Your task to perform on an android device: move a message to another label in the gmail app Image 0: 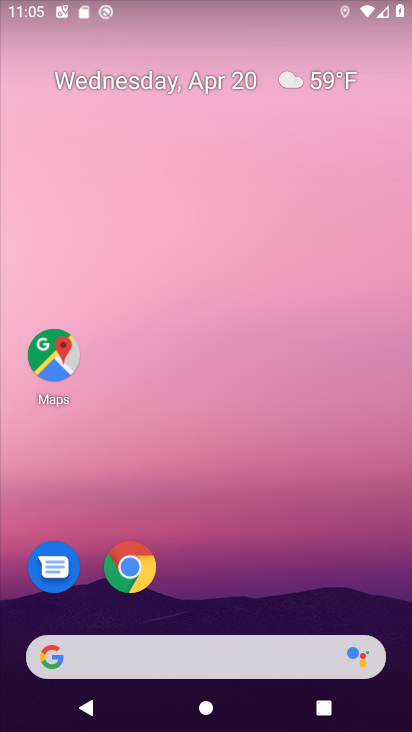
Step 0: drag from (265, 543) to (261, 47)
Your task to perform on an android device: move a message to another label in the gmail app Image 1: 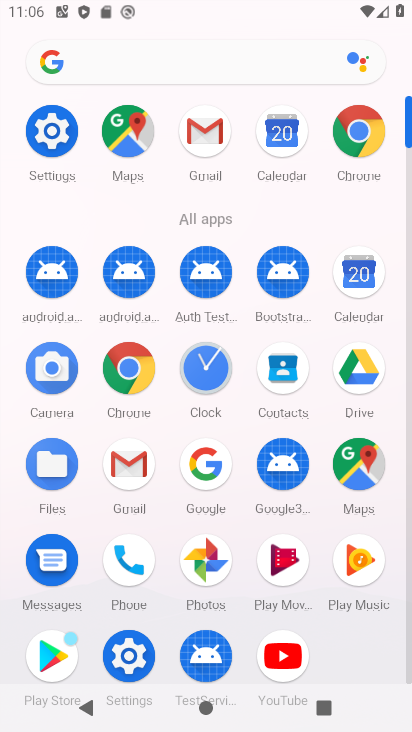
Step 1: click (130, 468)
Your task to perform on an android device: move a message to another label in the gmail app Image 2: 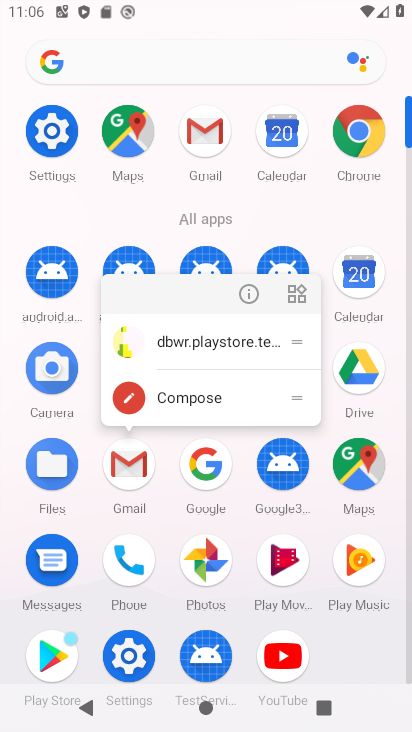
Step 2: click (133, 468)
Your task to perform on an android device: move a message to another label in the gmail app Image 3: 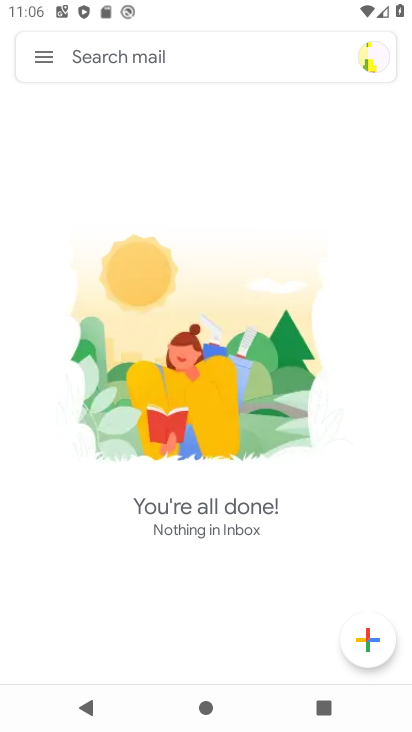
Step 3: click (53, 52)
Your task to perform on an android device: move a message to another label in the gmail app Image 4: 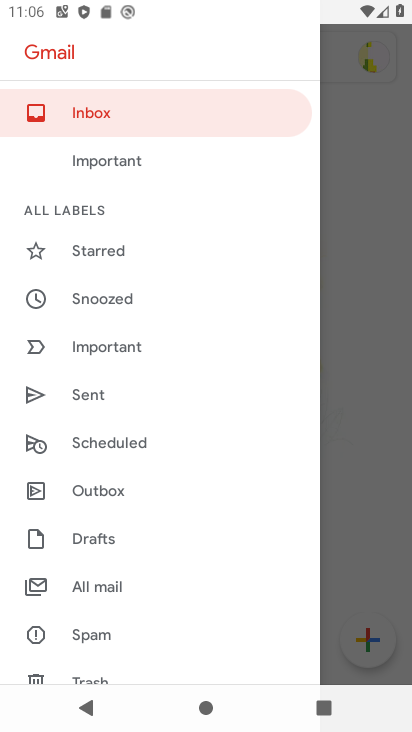
Step 4: click (66, 598)
Your task to perform on an android device: move a message to another label in the gmail app Image 5: 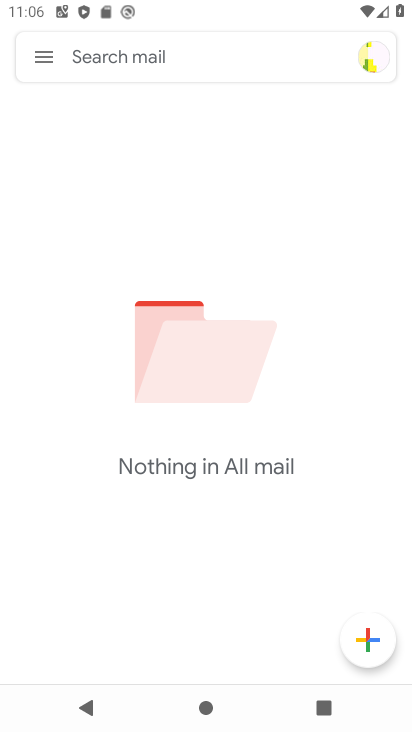
Step 5: task complete